Your task to perform on an android device: Open maps Image 0: 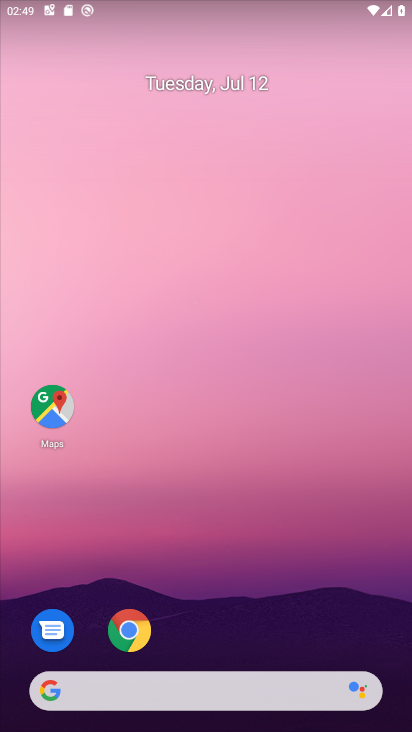
Step 0: click (54, 407)
Your task to perform on an android device: Open maps Image 1: 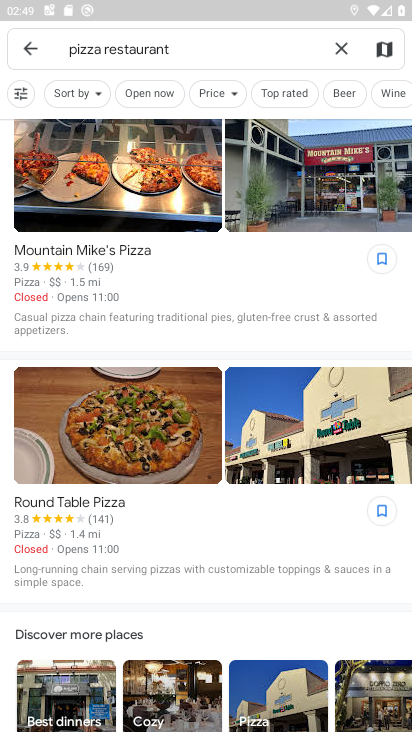
Step 1: click (340, 46)
Your task to perform on an android device: Open maps Image 2: 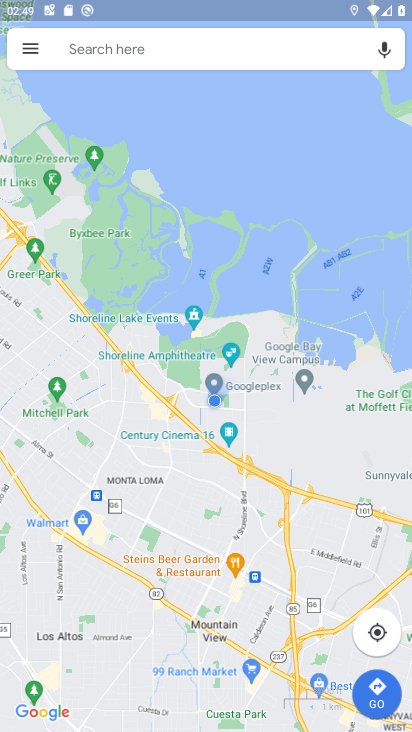
Step 2: task complete